Your task to perform on an android device: open wifi settings Image 0: 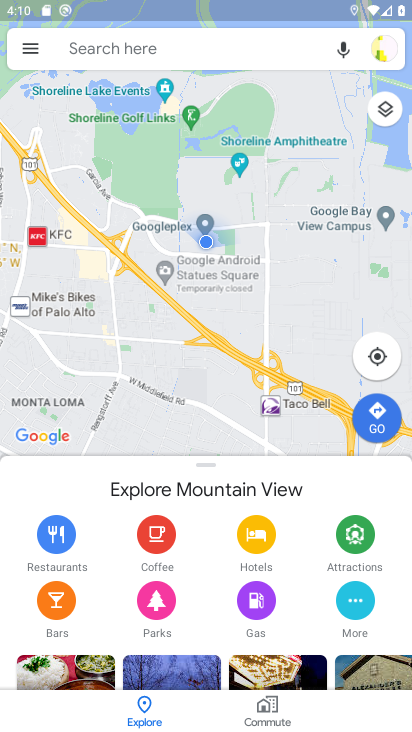
Step 0: press home button
Your task to perform on an android device: open wifi settings Image 1: 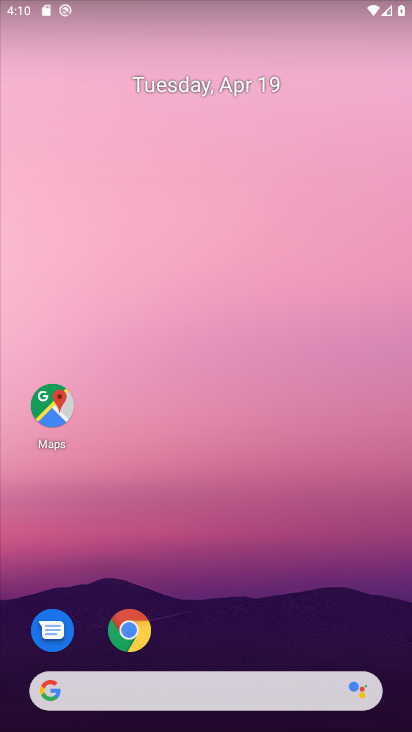
Step 1: drag from (198, 586) to (264, 219)
Your task to perform on an android device: open wifi settings Image 2: 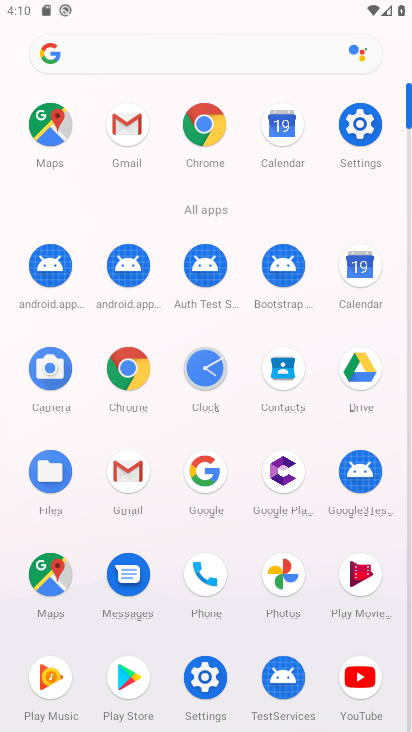
Step 2: click (360, 127)
Your task to perform on an android device: open wifi settings Image 3: 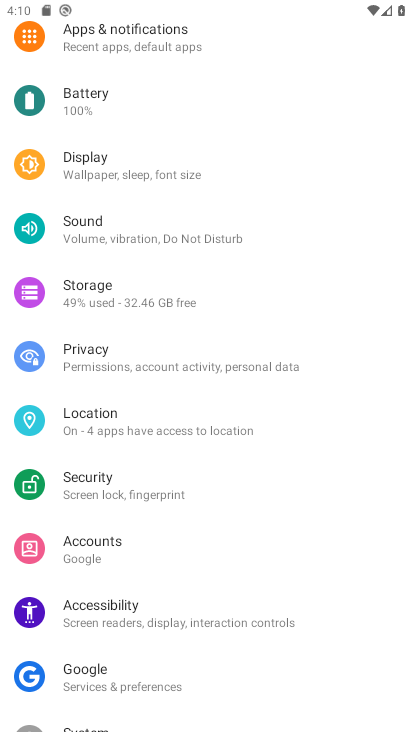
Step 3: drag from (163, 57) to (162, 377)
Your task to perform on an android device: open wifi settings Image 4: 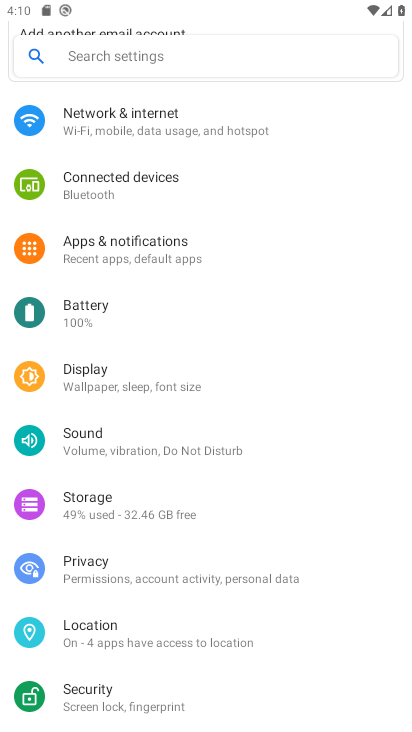
Step 4: click (166, 133)
Your task to perform on an android device: open wifi settings Image 5: 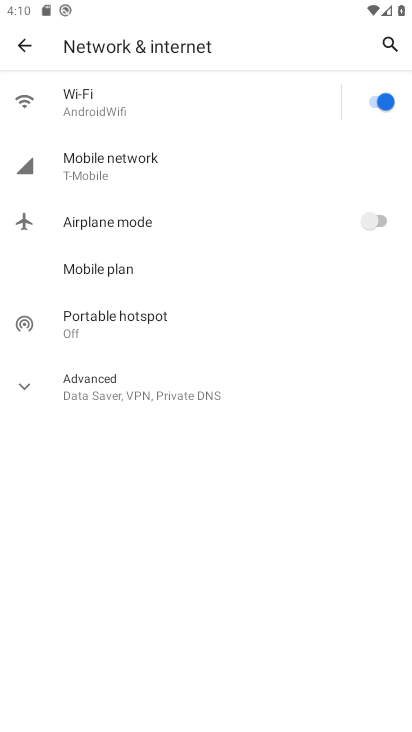
Step 5: click (181, 107)
Your task to perform on an android device: open wifi settings Image 6: 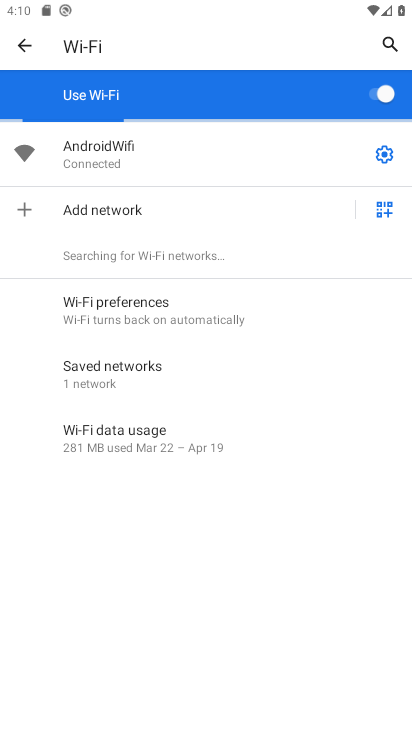
Step 6: task complete